Your task to perform on an android device: search for starred emails in the gmail app Image 0: 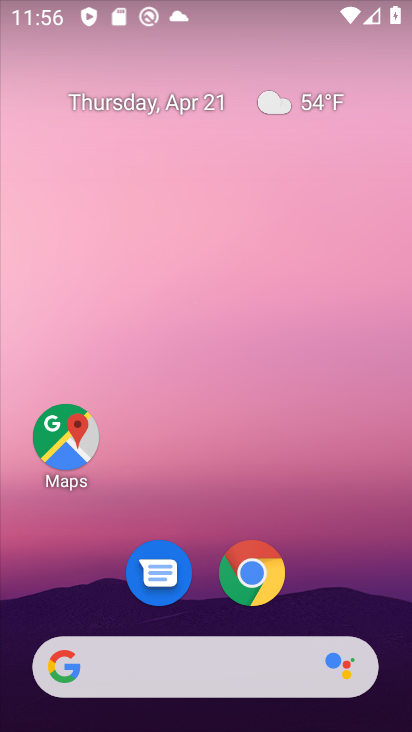
Step 0: drag from (363, 568) to (386, 115)
Your task to perform on an android device: search for starred emails in the gmail app Image 1: 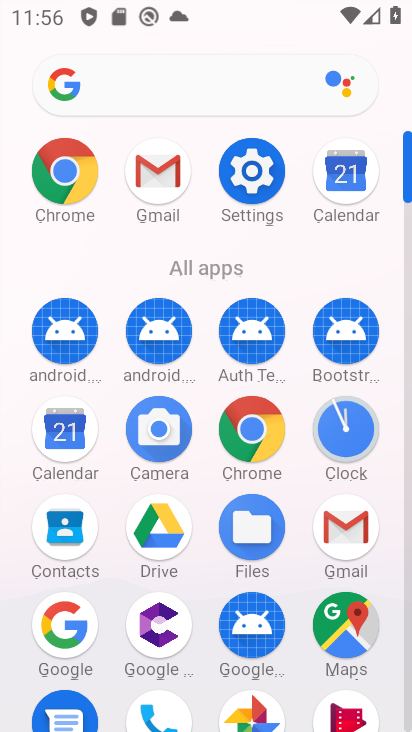
Step 1: drag from (275, 541) to (304, 307)
Your task to perform on an android device: search for starred emails in the gmail app Image 2: 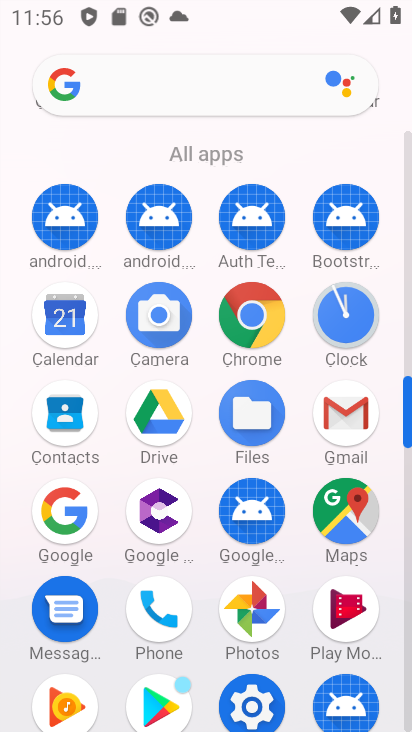
Step 2: click (321, 417)
Your task to perform on an android device: search for starred emails in the gmail app Image 3: 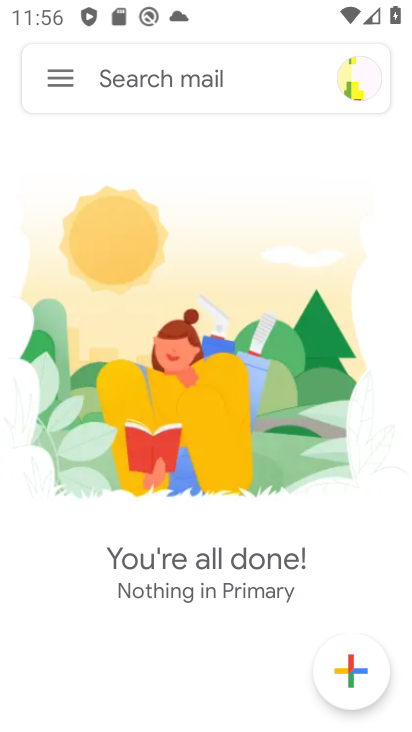
Step 3: click (81, 118)
Your task to perform on an android device: search for starred emails in the gmail app Image 4: 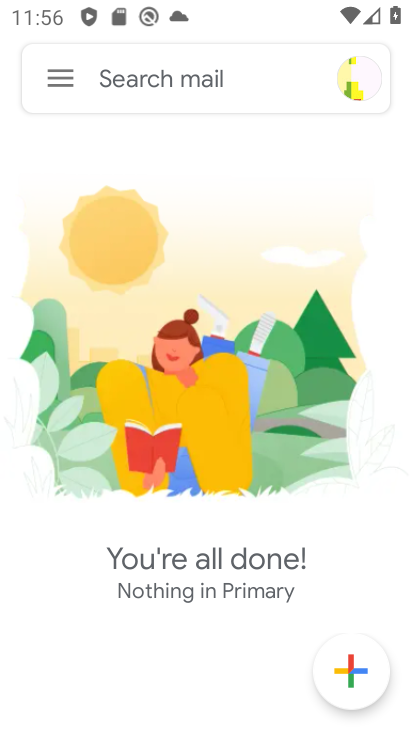
Step 4: click (71, 89)
Your task to perform on an android device: search for starred emails in the gmail app Image 5: 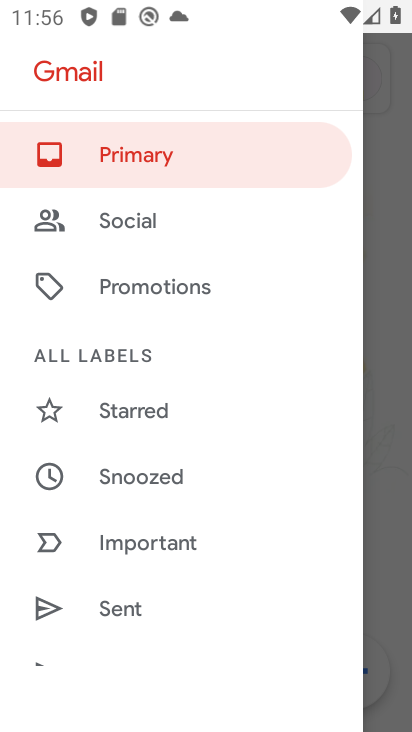
Step 5: drag from (164, 534) to (196, 256)
Your task to perform on an android device: search for starred emails in the gmail app Image 6: 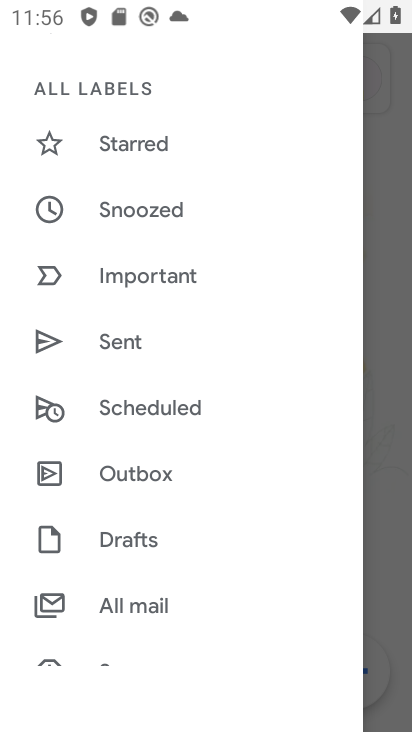
Step 6: drag from (240, 522) to (269, 173)
Your task to perform on an android device: search for starred emails in the gmail app Image 7: 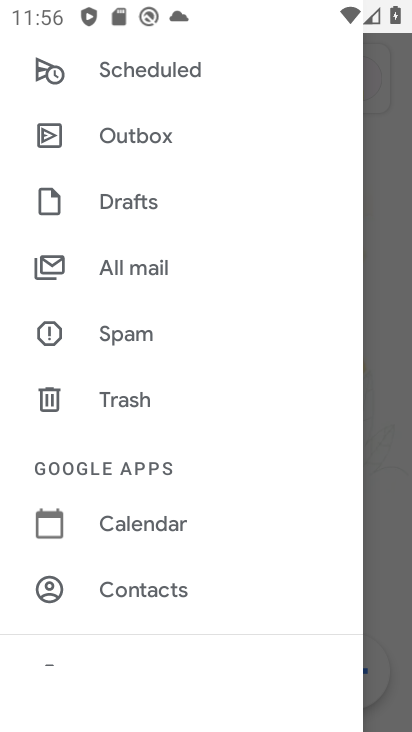
Step 7: drag from (245, 514) to (249, 172)
Your task to perform on an android device: search for starred emails in the gmail app Image 8: 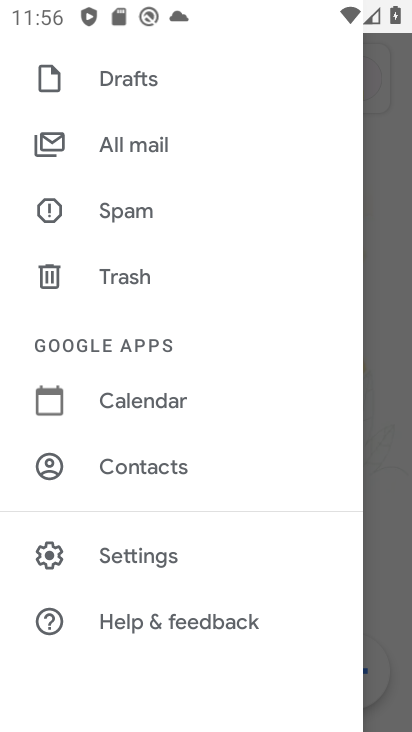
Step 8: drag from (230, 157) to (217, 480)
Your task to perform on an android device: search for starred emails in the gmail app Image 9: 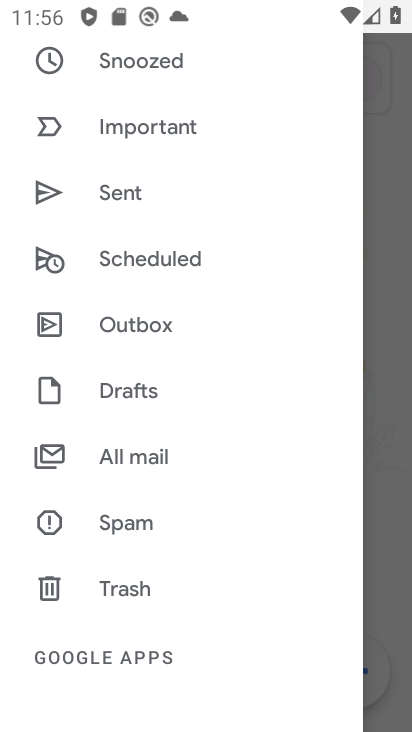
Step 9: drag from (201, 210) to (205, 499)
Your task to perform on an android device: search for starred emails in the gmail app Image 10: 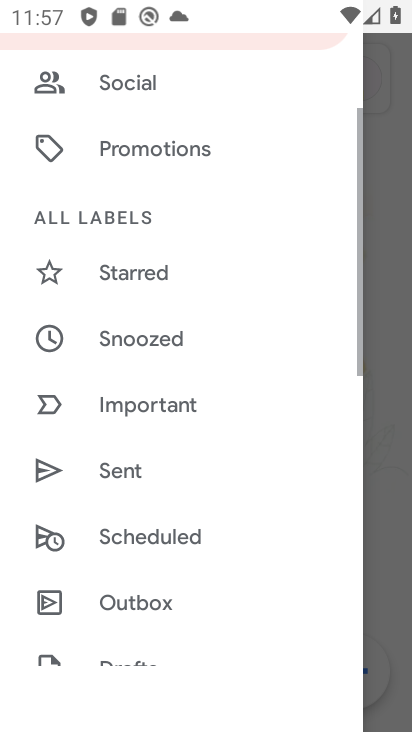
Step 10: click (164, 270)
Your task to perform on an android device: search for starred emails in the gmail app Image 11: 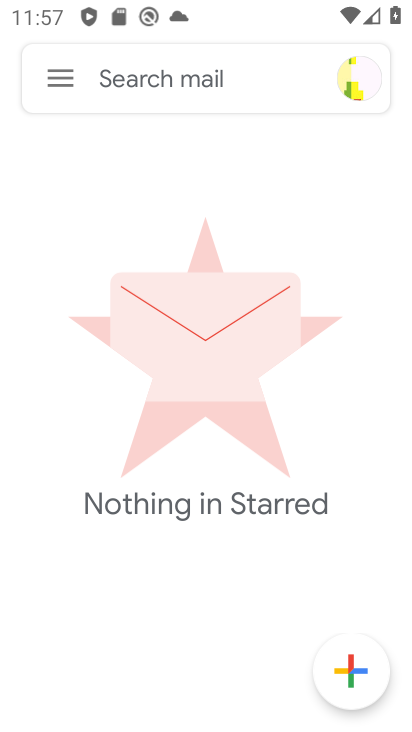
Step 11: task complete